Your task to perform on an android device: Open location settings Image 0: 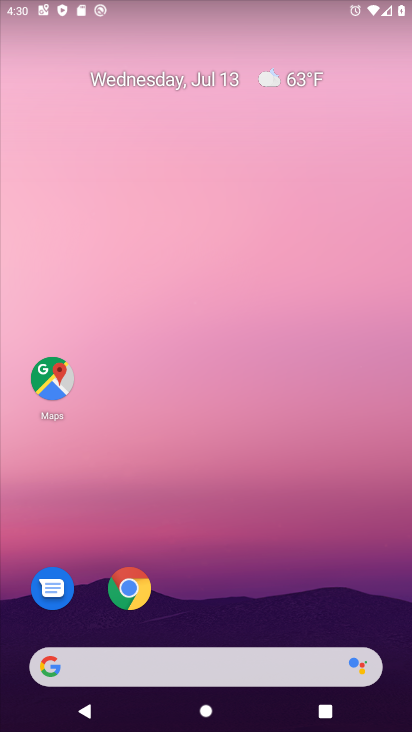
Step 0: drag from (234, 672) to (261, 211)
Your task to perform on an android device: Open location settings Image 1: 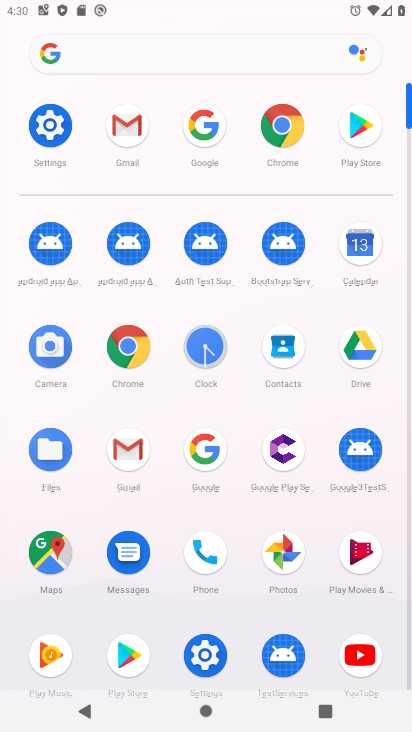
Step 1: click (50, 125)
Your task to perform on an android device: Open location settings Image 2: 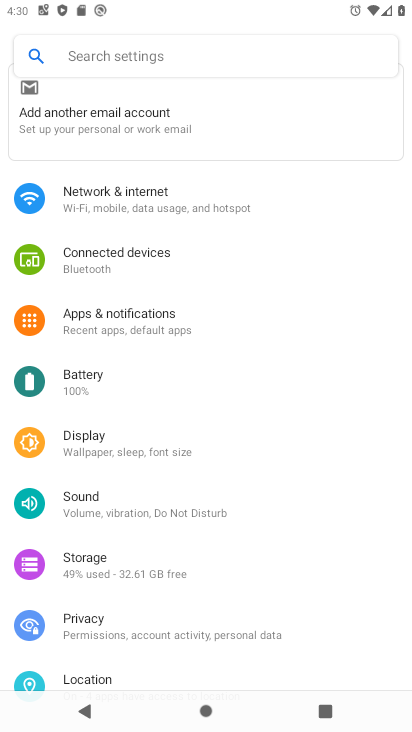
Step 2: drag from (107, 539) to (174, 432)
Your task to perform on an android device: Open location settings Image 3: 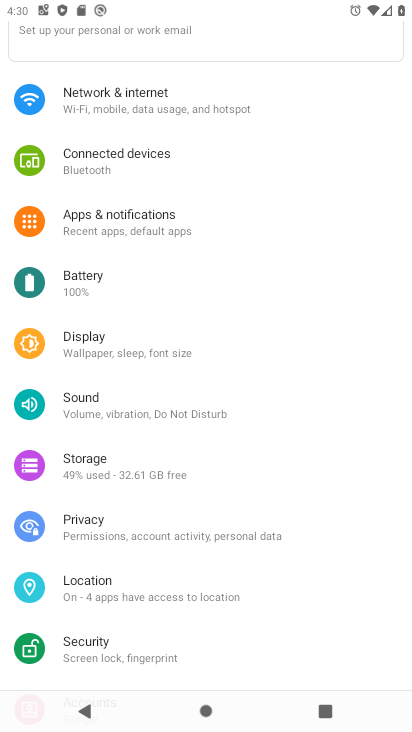
Step 3: click (116, 589)
Your task to perform on an android device: Open location settings Image 4: 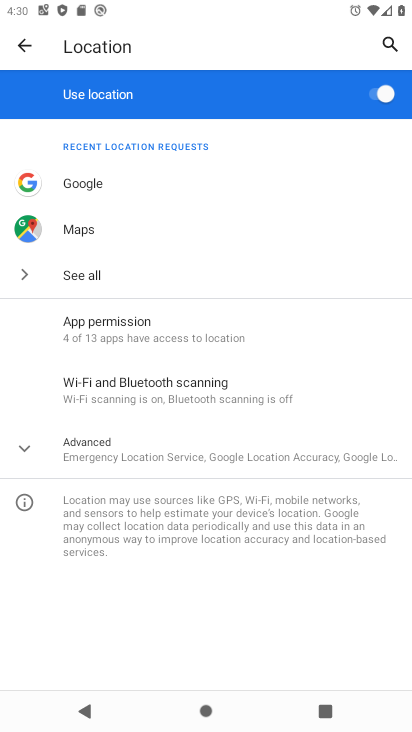
Step 4: task complete